Your task to perform on an android device: remove spam from my inbox in the gmail app Image 0: 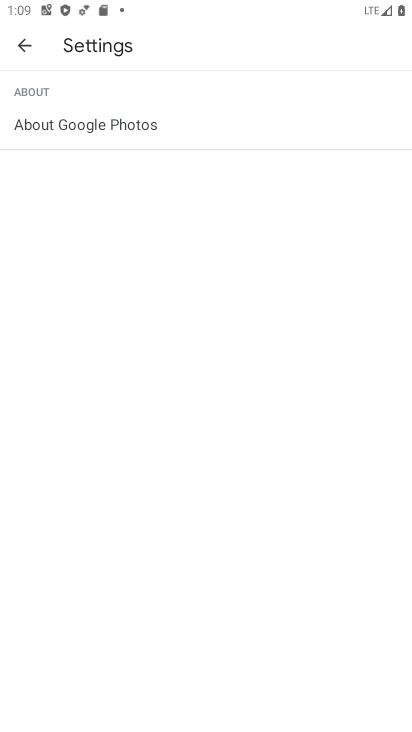
Step 0: press home button
Your task to perform on an android device: remove spam from my inbox in the gmail app Image 1: 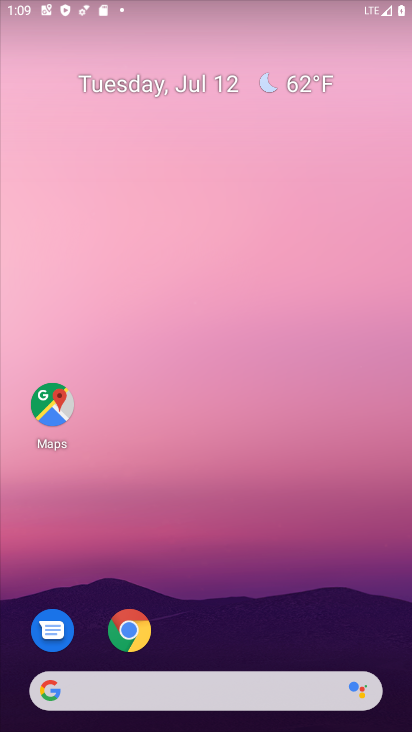
Step 1: drag from (238, 552) to (281, 48)
Your task to perform on an android device: remove spam from my inbox in the gmail app Image 2: 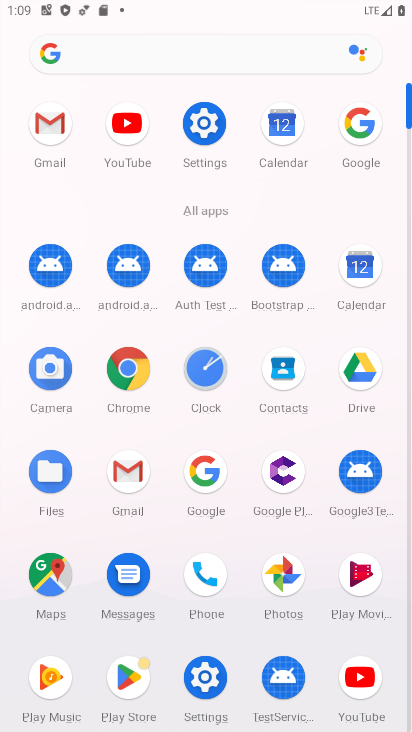
Step 2: click (49, 124)
Your task to perform on an android device: remove spam from my inbox in the gmail app Image 3: 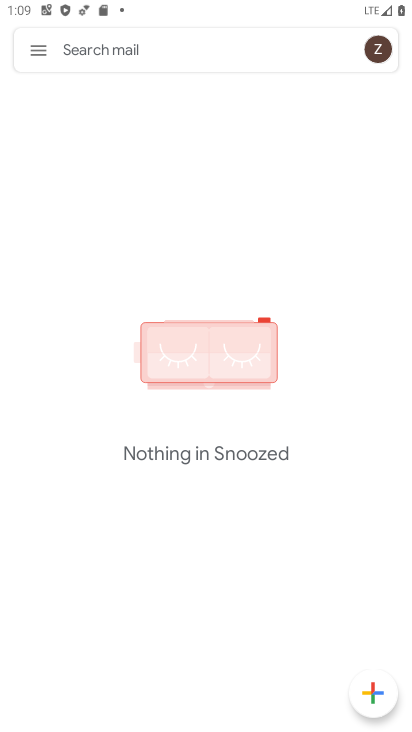
Step 3: click (40, 52)
Your task to perform on an android device: remove spam from my inbox in the gmail app Image 4: 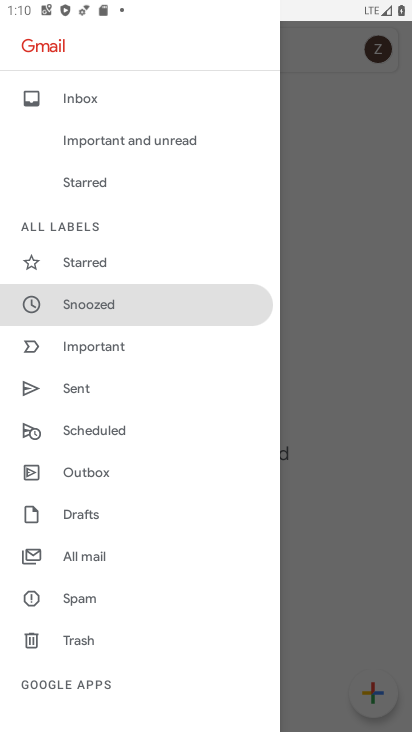
Step 4: click (100, 601)
Your task to perform on an android device: remove spam from my inbox in the gmail app Image 5: 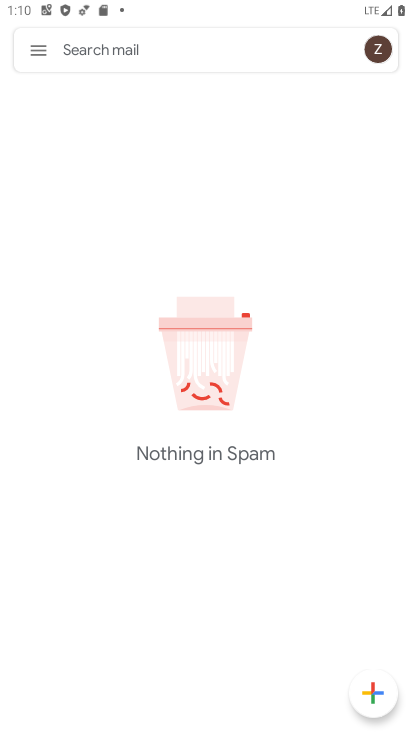
Step 5: task complete